Your task to perform on an android device: add a label to a message in the gmail app Image 0: 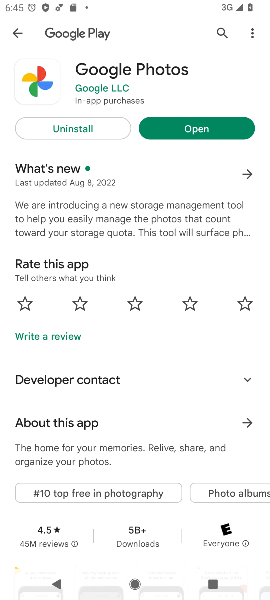
Step 0: press home button
Your task to perform on an android device: add a label to a message in the gmail app Image 1: 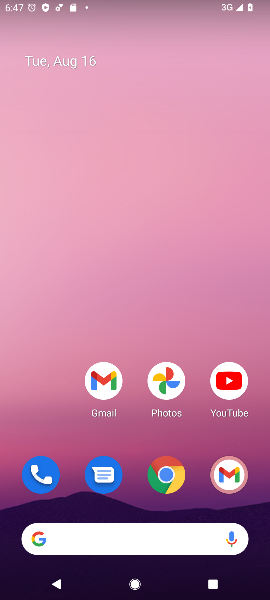
Step 1: drag from (140, 455) to (29, 10)
Your task to perform on an android device: add a label to a message in the gmail app Image 2: 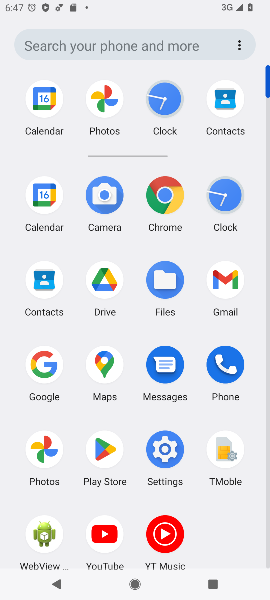
Step 2: click (236, 286)
Your task to perform on an android device: add a label to a message in the gmail app Image 3: 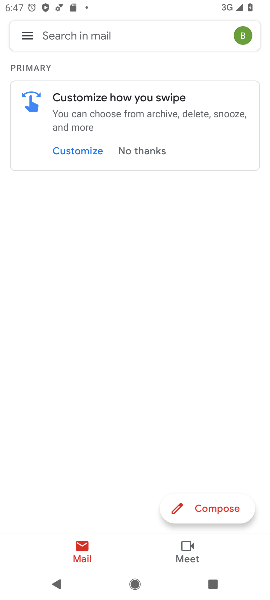
Step 3: task complete